Your task to perform on an android device: Open Youtube and go to the subscriptions tab Image 0: 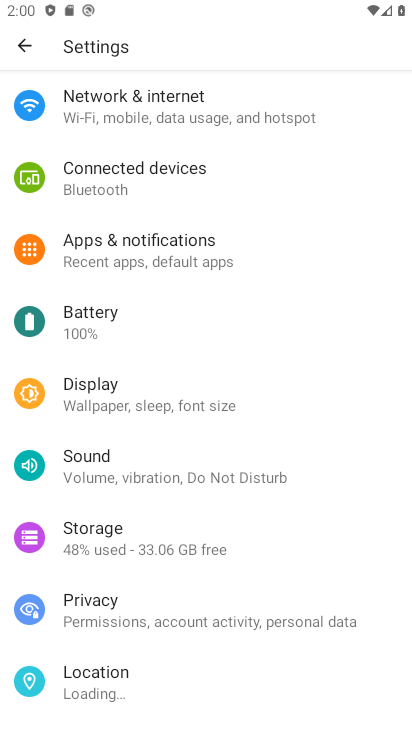
Step 0: press home button
Your task to perform on an android device: Open Youtube and go to the subscriptions tab Image 1: 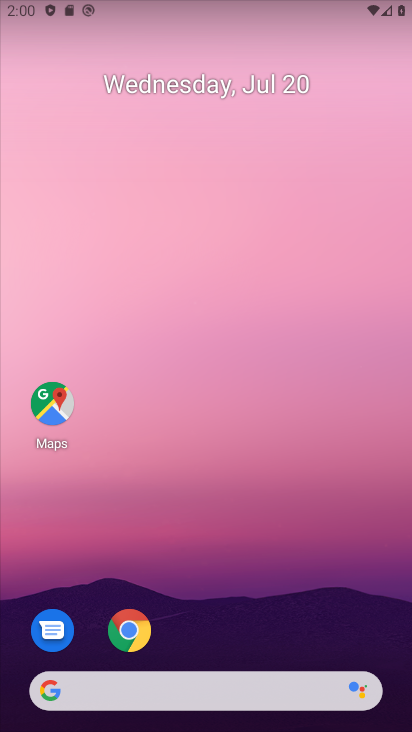
Step 1: drag from (337, 608) to (368, 44)
Your task to perform on an android device: Open Youtube and go to the subscriptions tab Image 2: 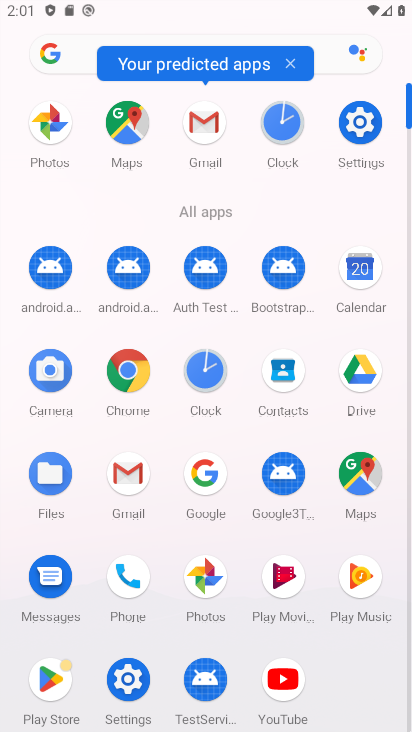
Step 2: click (290, 673)
Your task to perform on an android device: Open Youtube and go to the subscriptions tab Image 3: 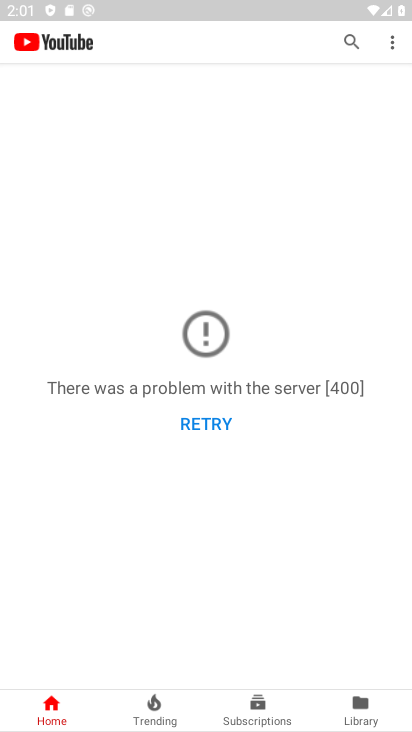
Step 3: click (250, 710)
Your task to perform on an android device: Open Youtube and go to the subscriptions tab Image 4: 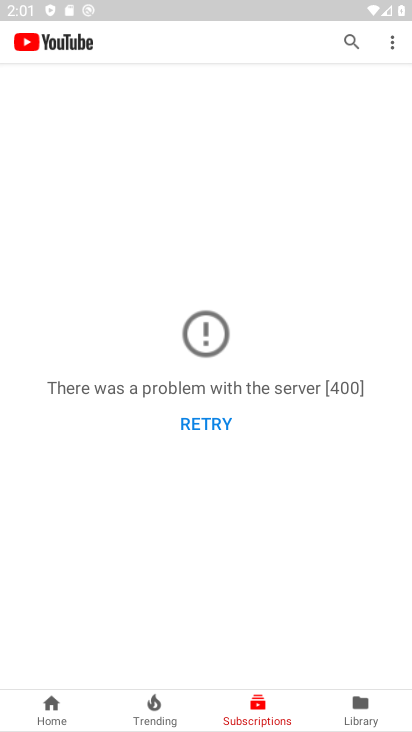
Step 4: task complete